Your task to perform on an android device: turn off location Image 0: 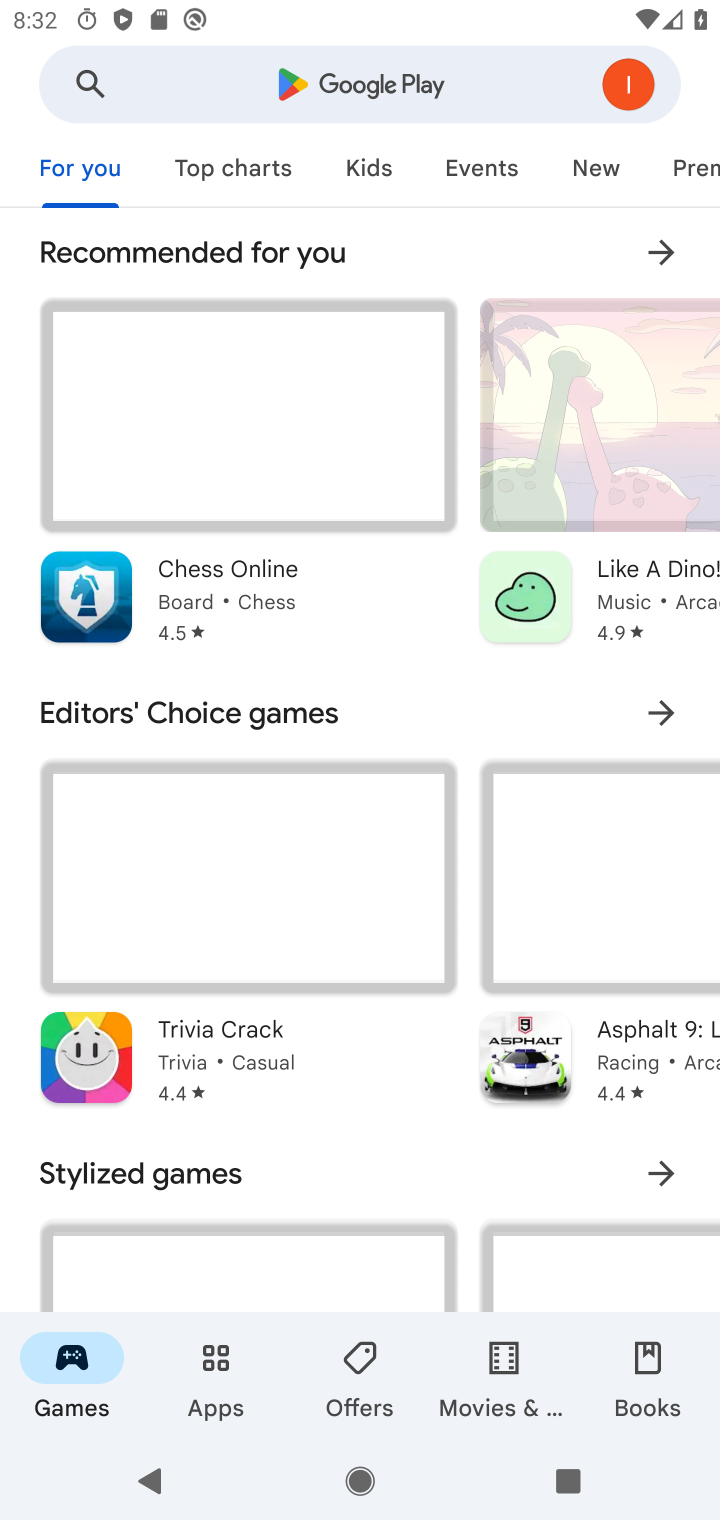
Step 0: press home button
Your task to perform on an android device: turn off location Image 1: 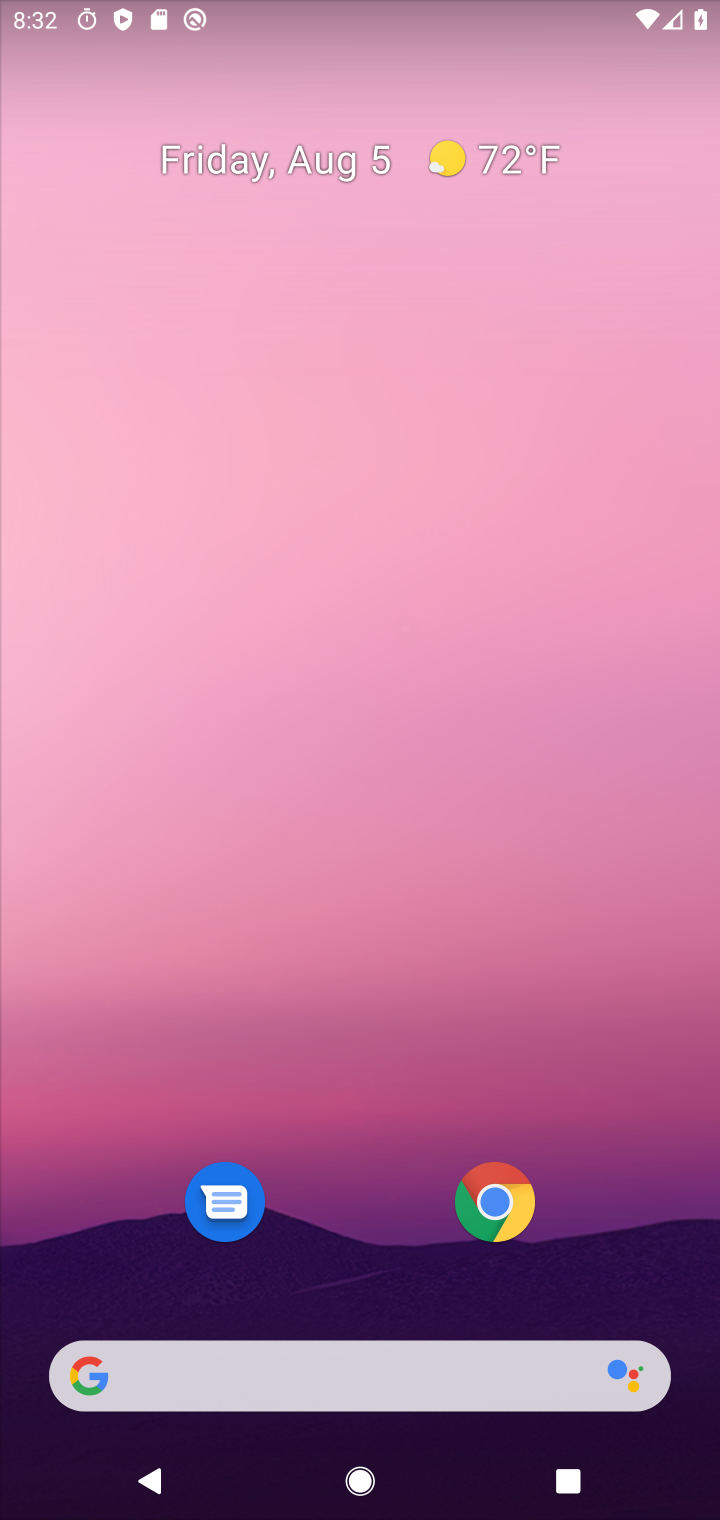
Step 1: drag from (337, 1244) to (522, 146)
Your task to perform on an android device: turn off location Image 2: 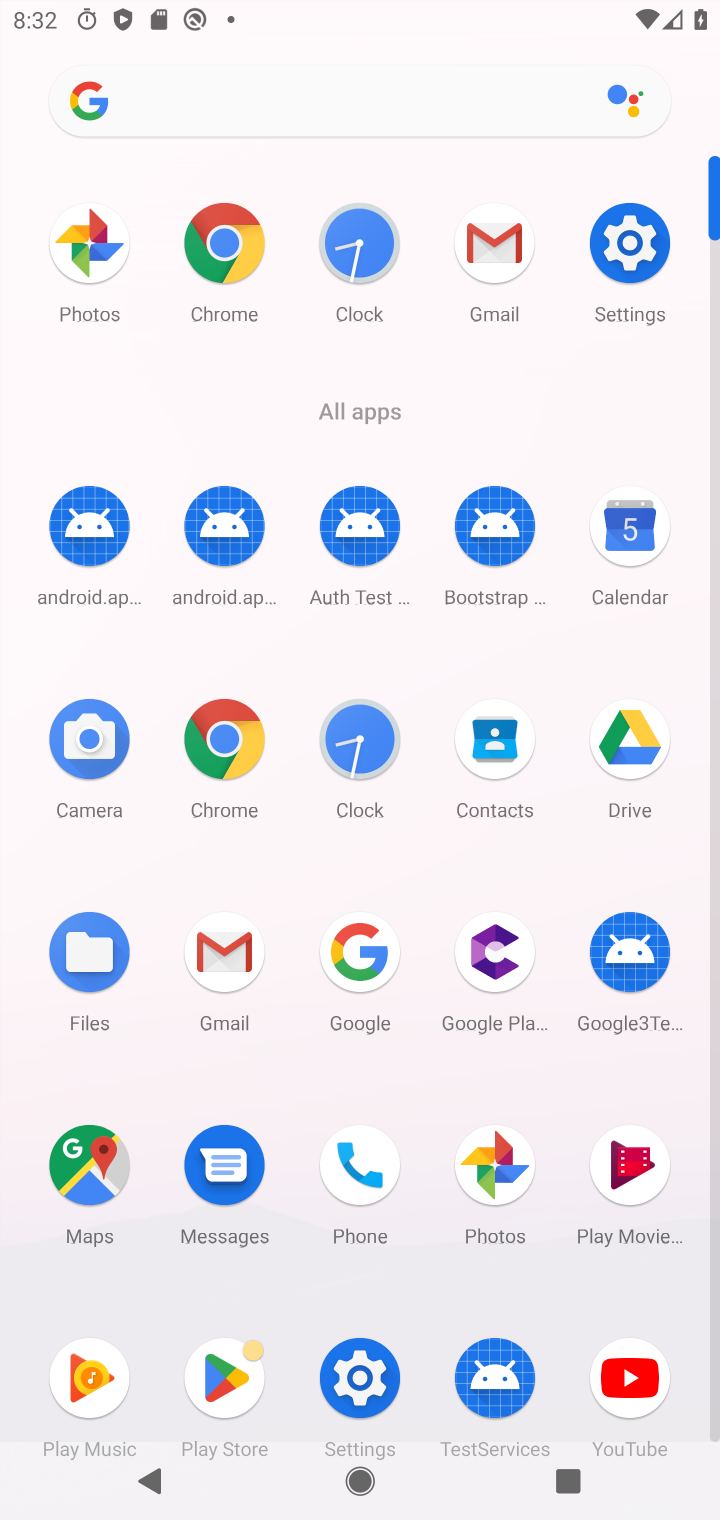
Step 2: click (616, 236)
Your task to perform on an android device: turn off location Image 3: 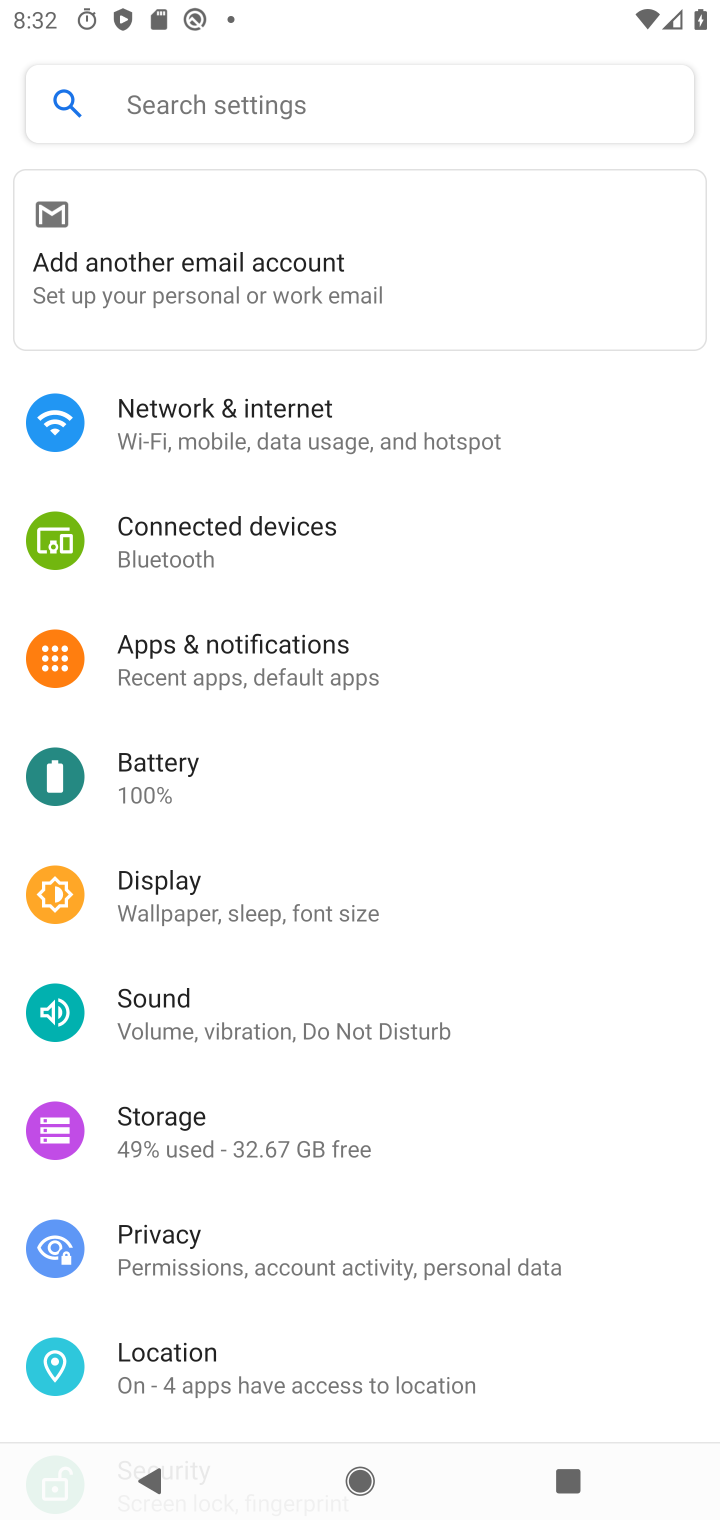
Step 3: click (211, 1366)
Your task to perform on an android device: turn off location Image 4: 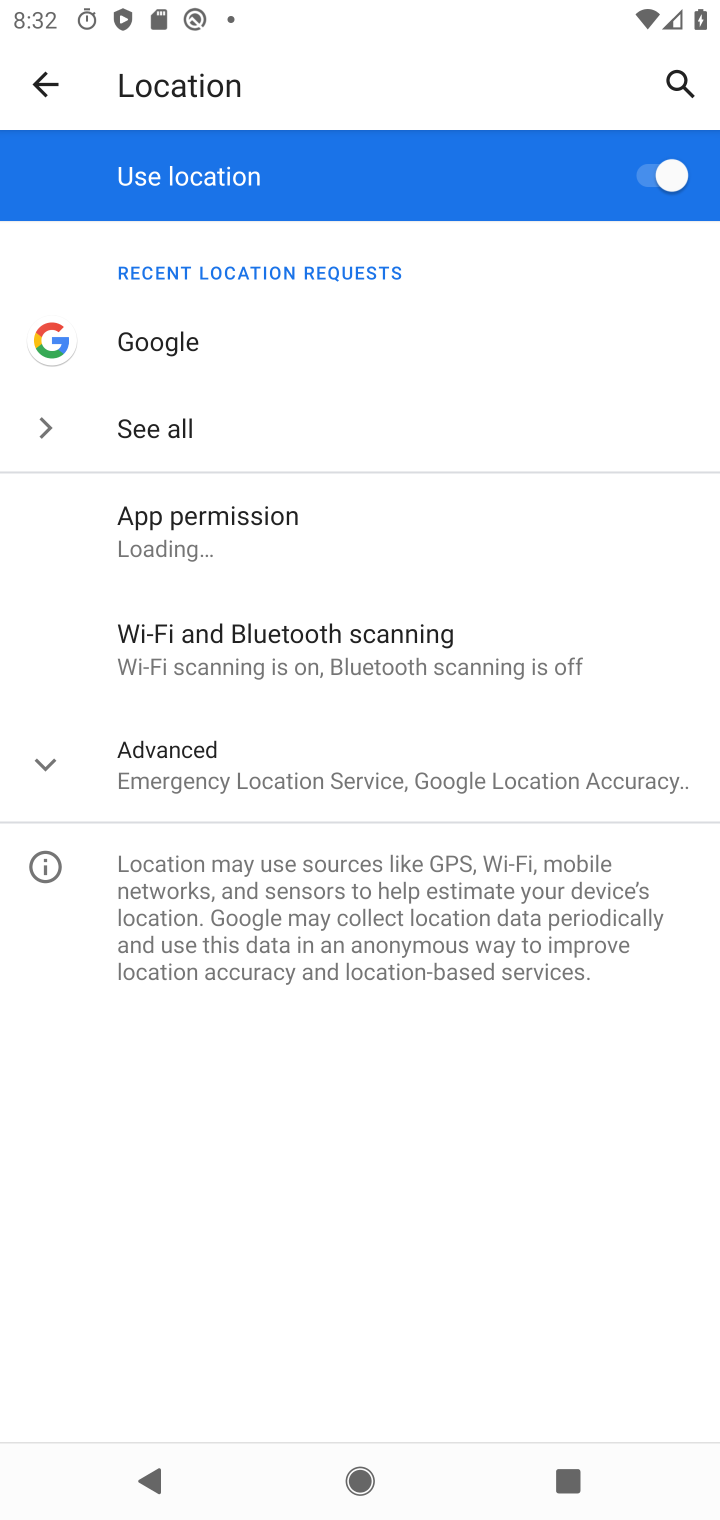
Step 4: click (632, 175)
Your task to perform on an android device: turn off location Image 5: 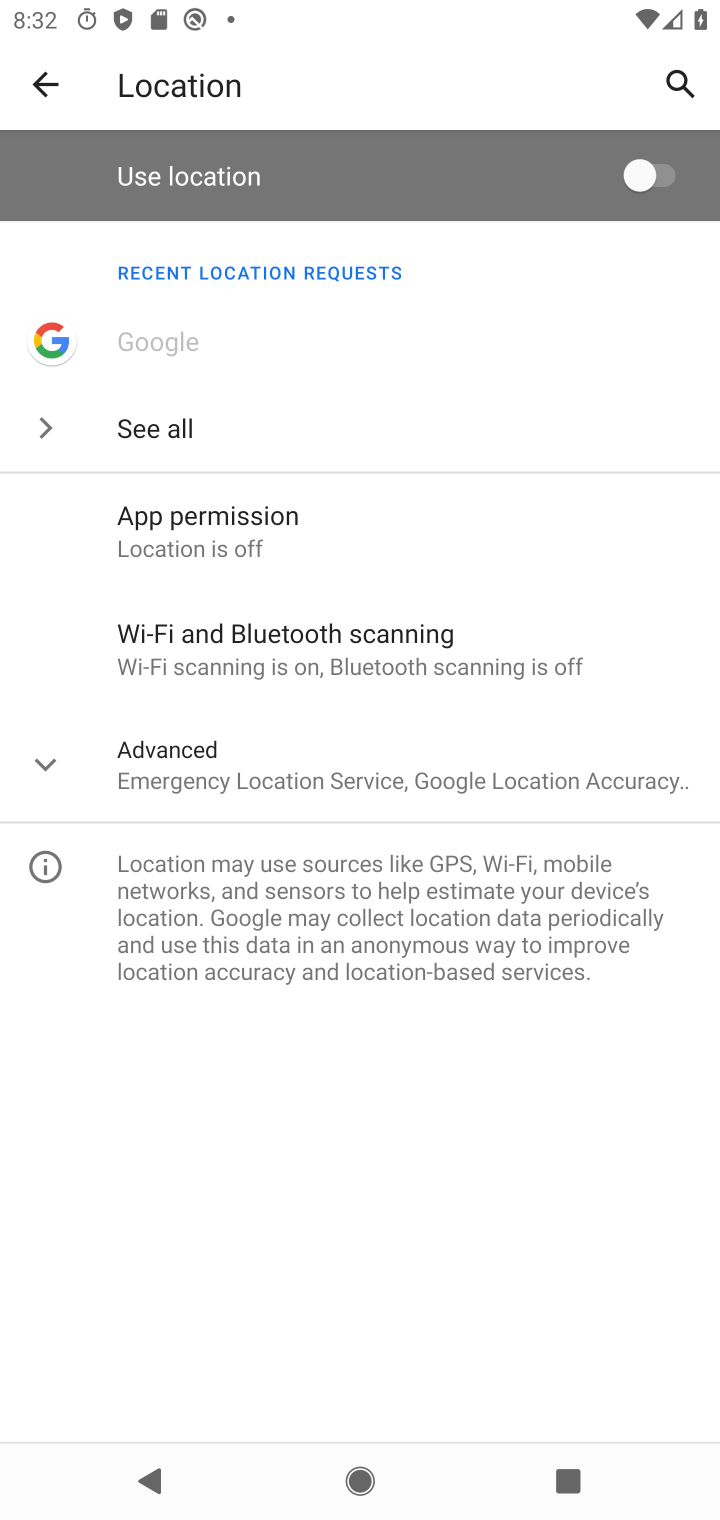
Step 5: task complete